Your task to perform on an android device: Open Google Maps Image 0: 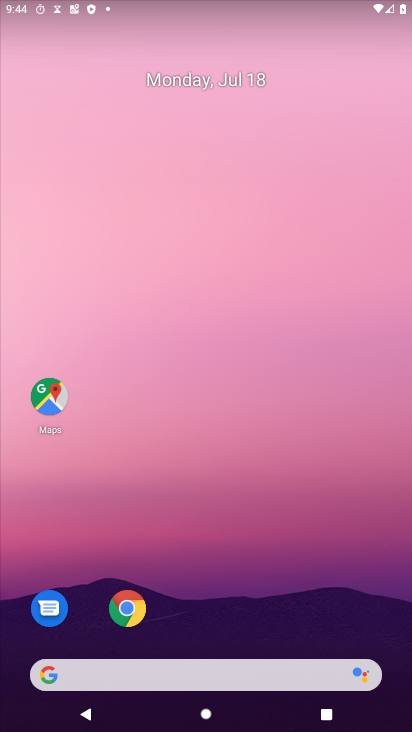
Step 0: click (43, 401)
Your task to perform on an android device: Open Google Maps Image 1: 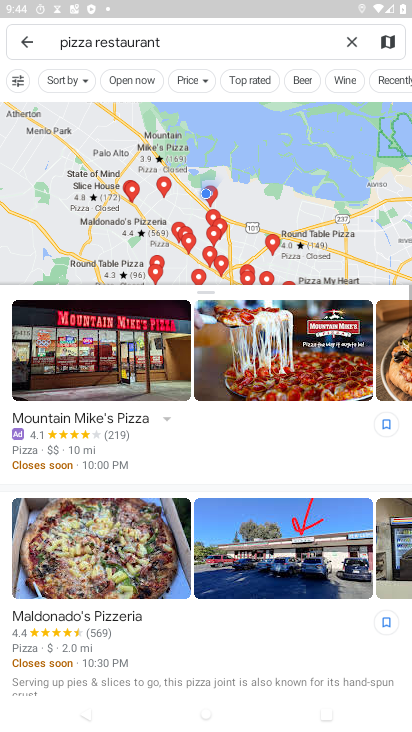
Step 1: task complete